Your task to perform on an android device: Search for "macbook" on newegg, select the first entry, and add it to the cart. Image 0: 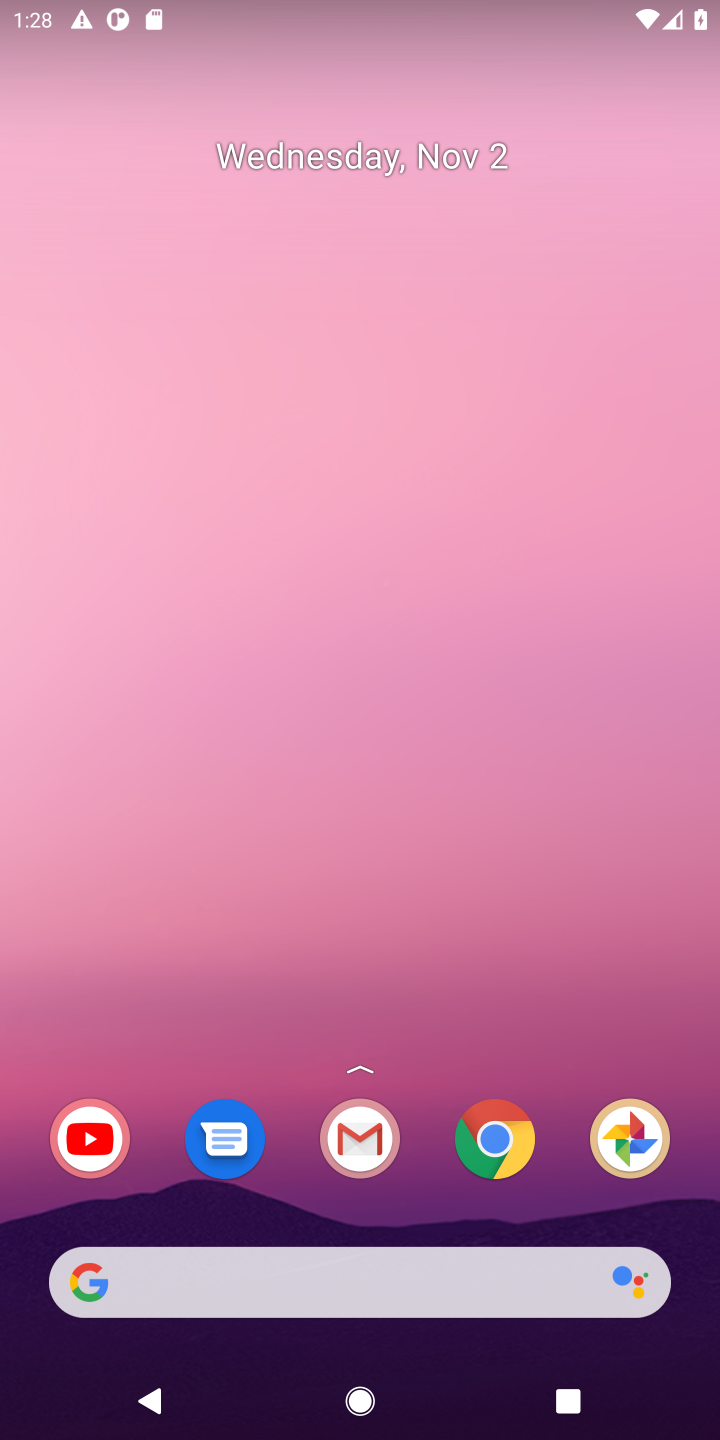
Step 0: press home button
Your task to perform on an android device: Search for "macbook" on newegg, select the first entry, and add it to the cart. Image 1: 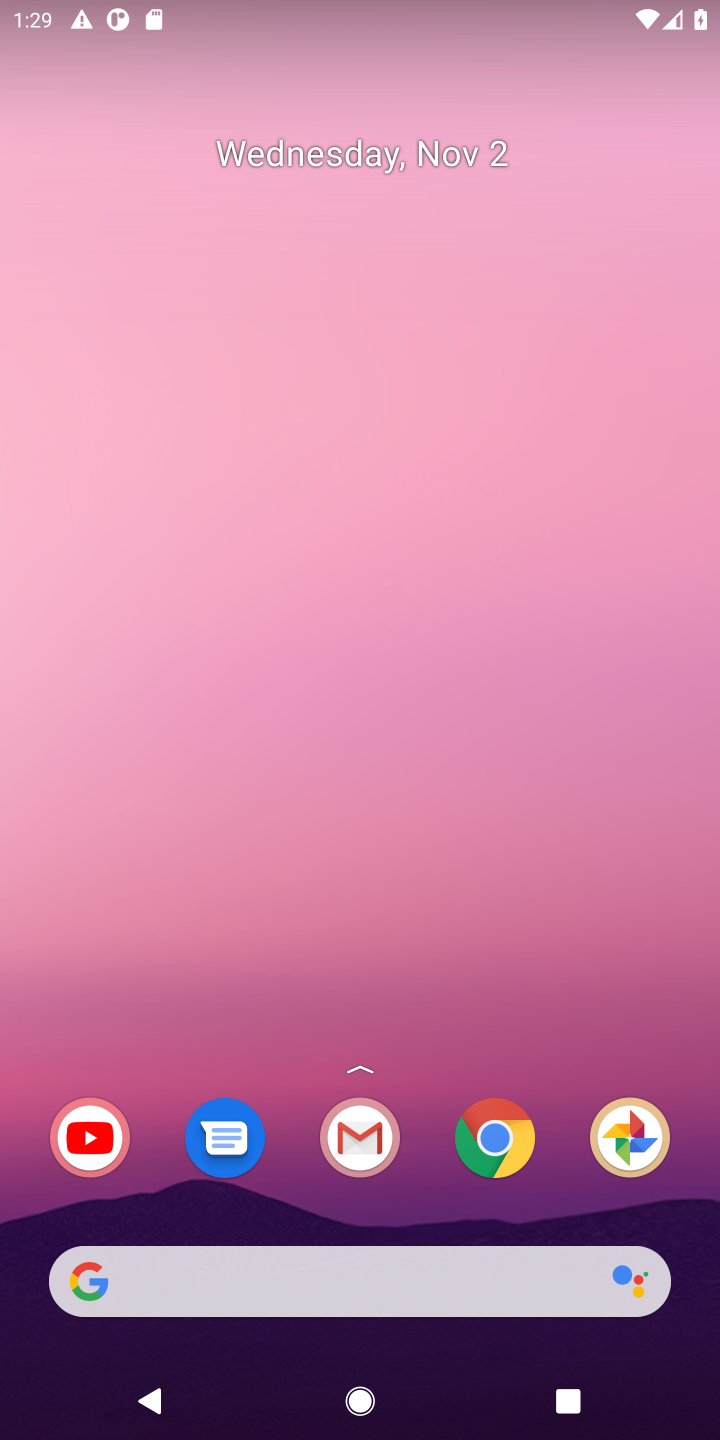
Step 1: click (150, 1270)
Your task to perform on an android device: Search for "macbook" on newegg, select the first entry, and add it to the cart. Image 2: 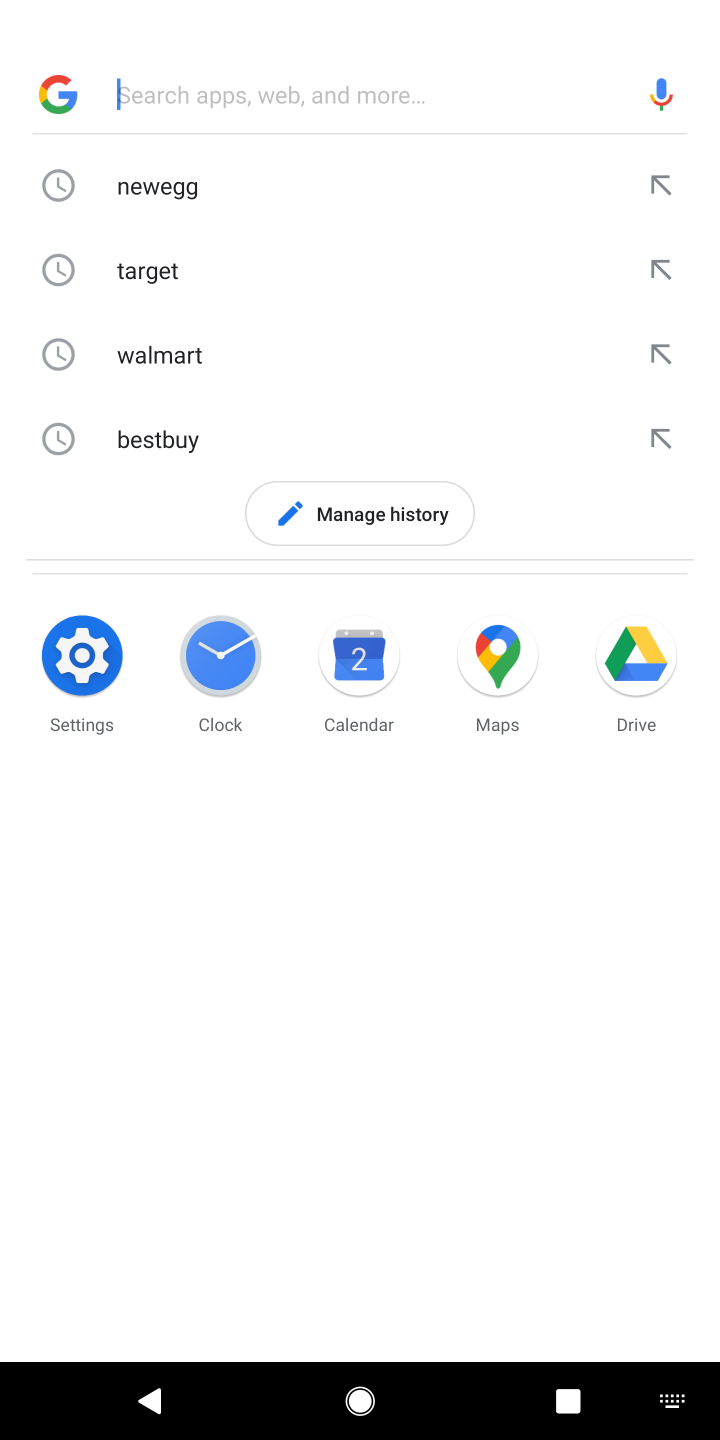
Step 2: type " newegg"
Your task to perform on an android device: Search for "macbook" on newegg, select the first entry, and add it to the cart. Image 3: 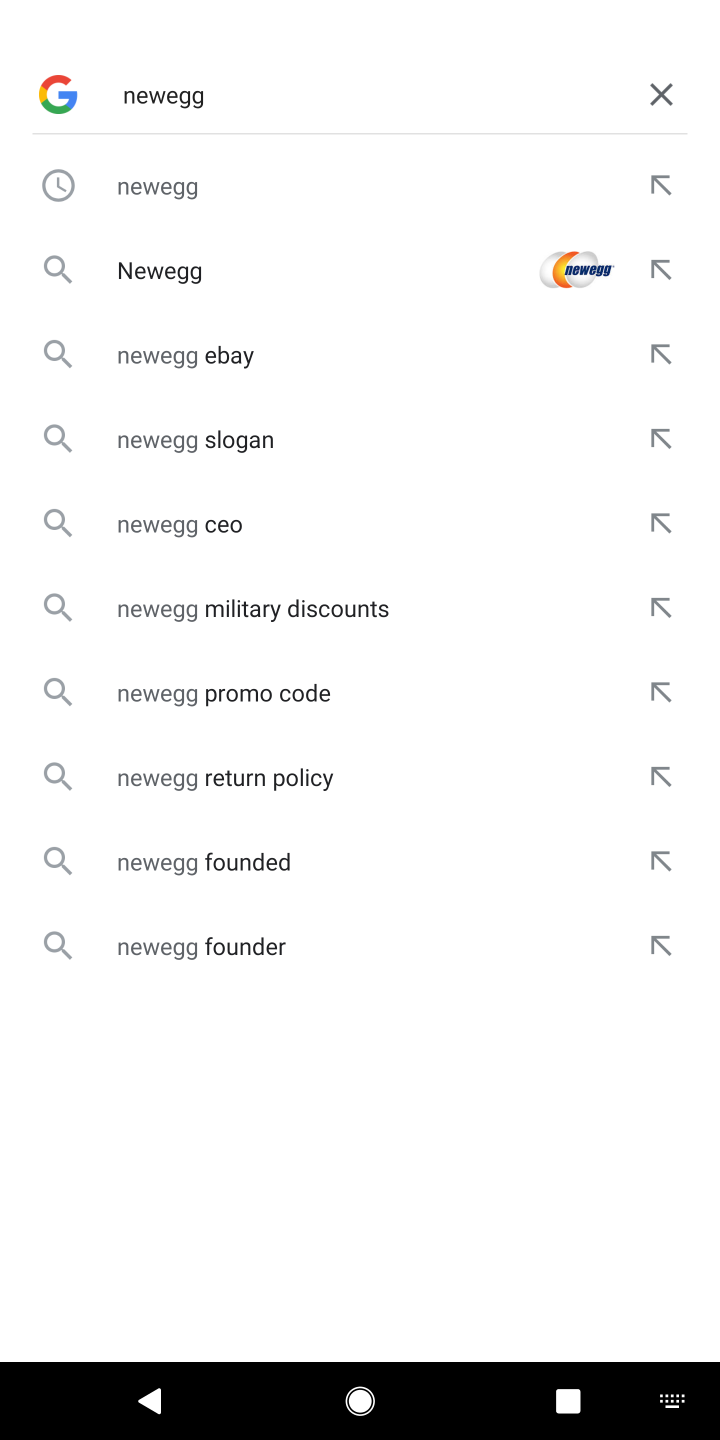
Step 3: press enter
Your task to perform on an android device: Search for "macbook" on newegg, select the first entry, and add it to the cart. Image 4: 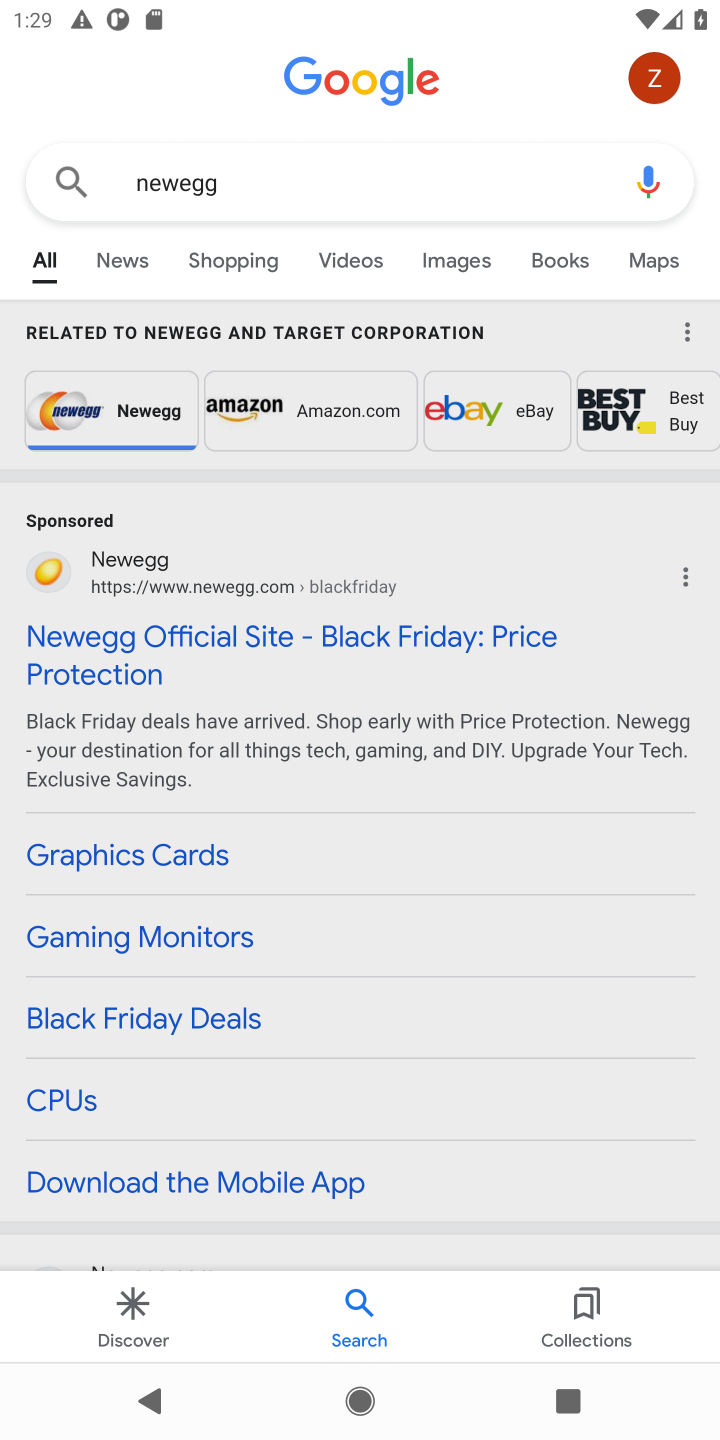
Step 4: click (237, 645)
Your task to perform on an android device: Search for "macbook" on newegg, select the first entry, and add it to the cart. Image 5: 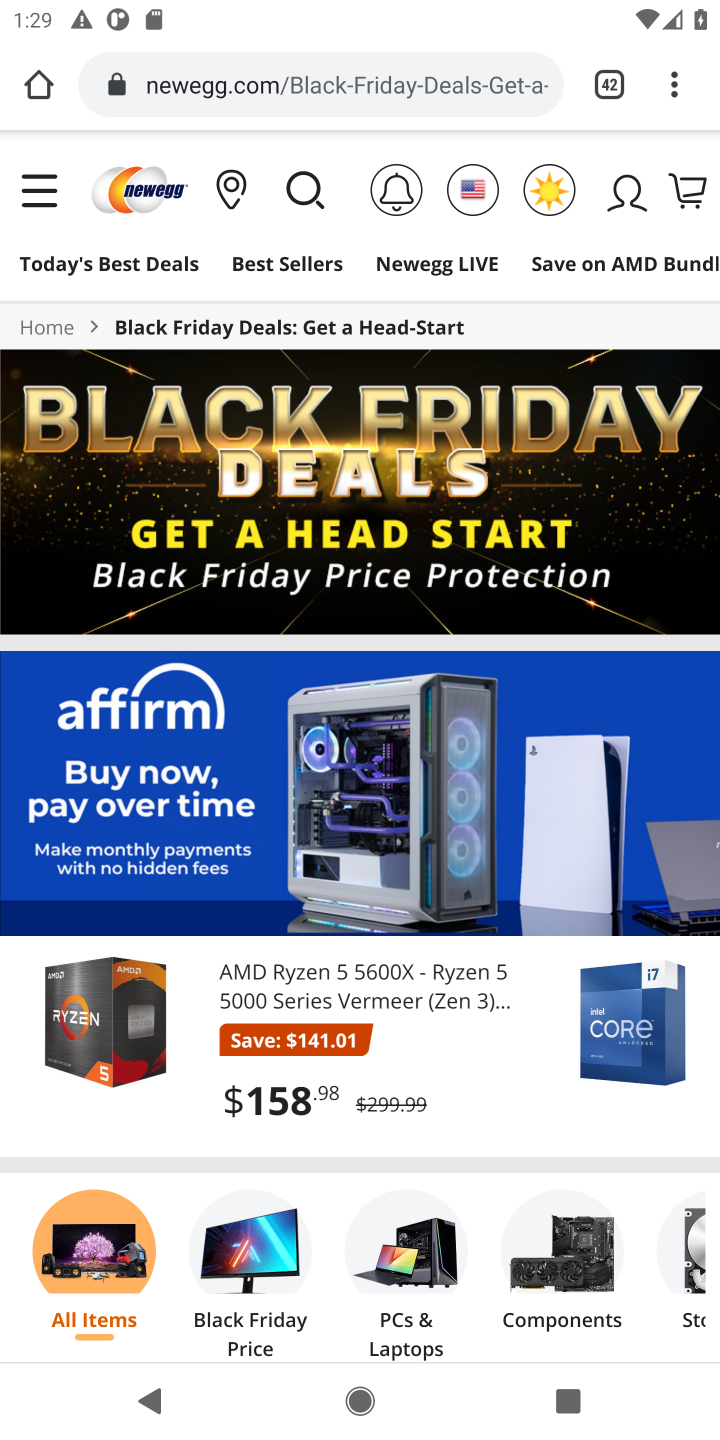
Step 5: click (296, 183)
Your task to perform on an android device: Search for "macbook" on newegg, select the first entry, and add it to the cart. Image 6: 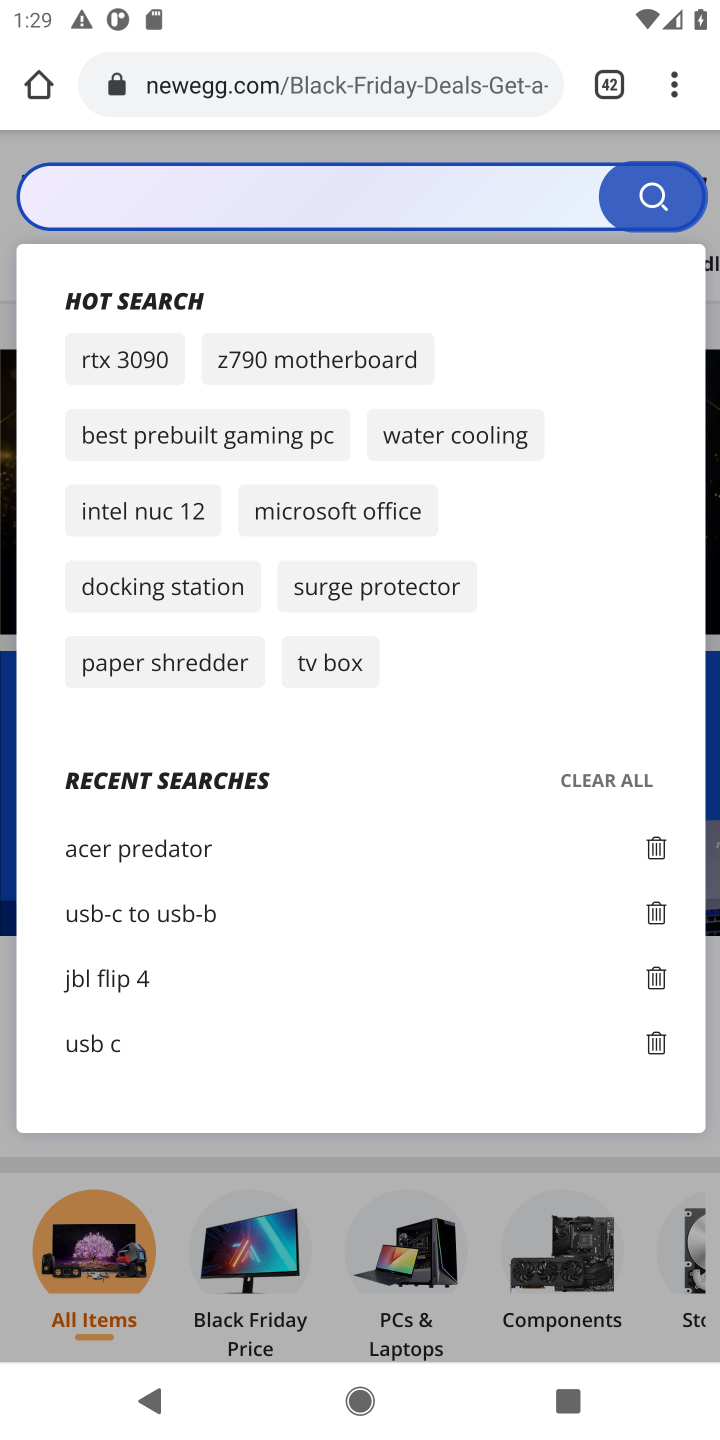
Step 6: click (135, 190)
Your task to perform on an android device: Search for "macbook" on newegg, select the first entry, and add it to the cart. Image 7: 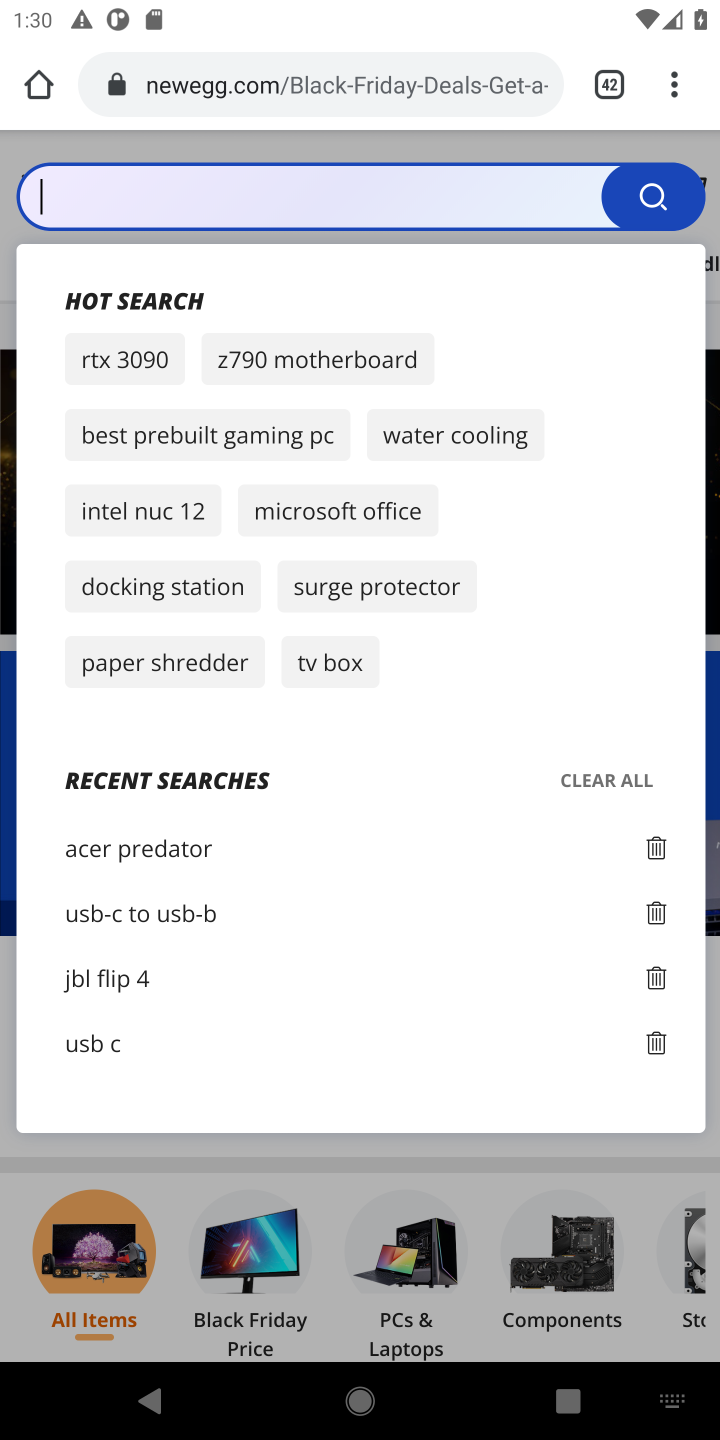
Step 7: press enter
Your task to perform on an android device: Search for "macbook" on newegg, select the first entry, and add it to the cart. Image 8: 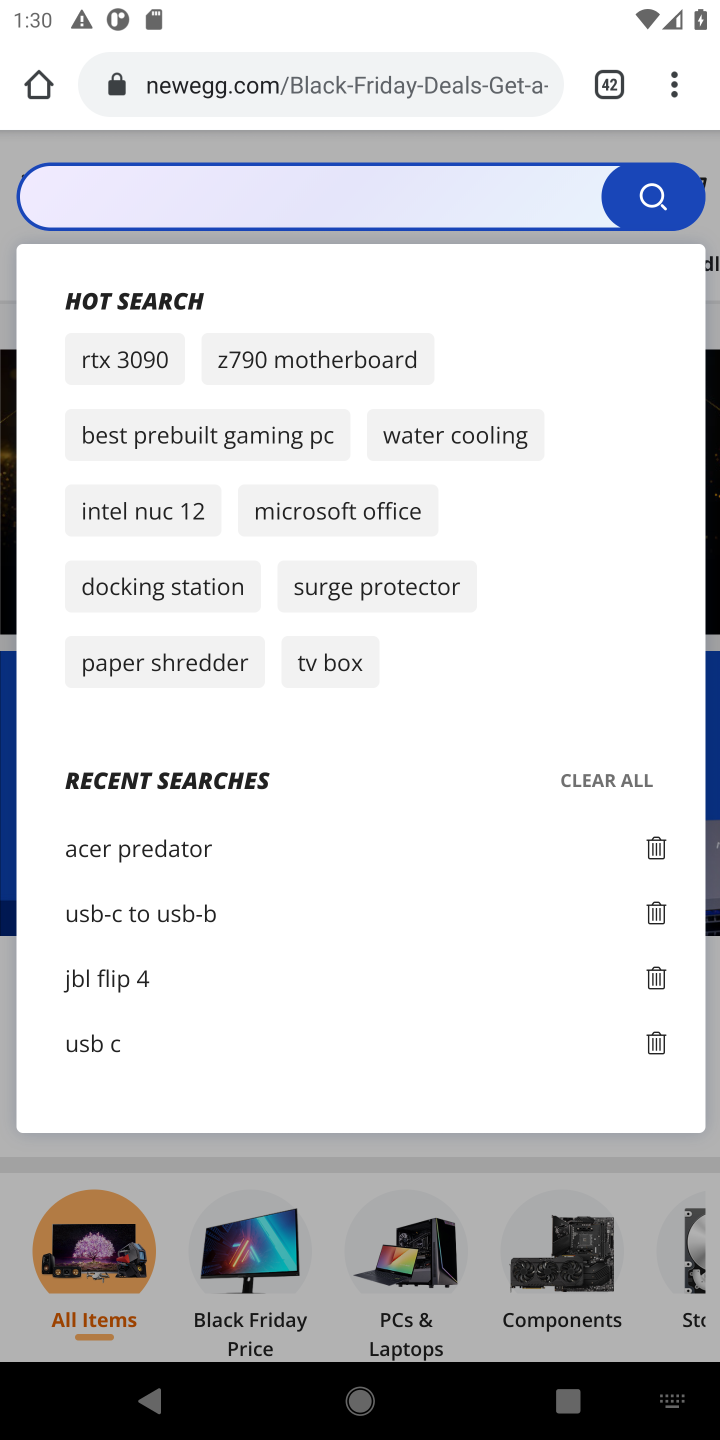
Step 8: type "mackbook"
Your task to perform on an android device: Search for "macbook" on newegg, select the first entry, and add it to the cart. Image 9: 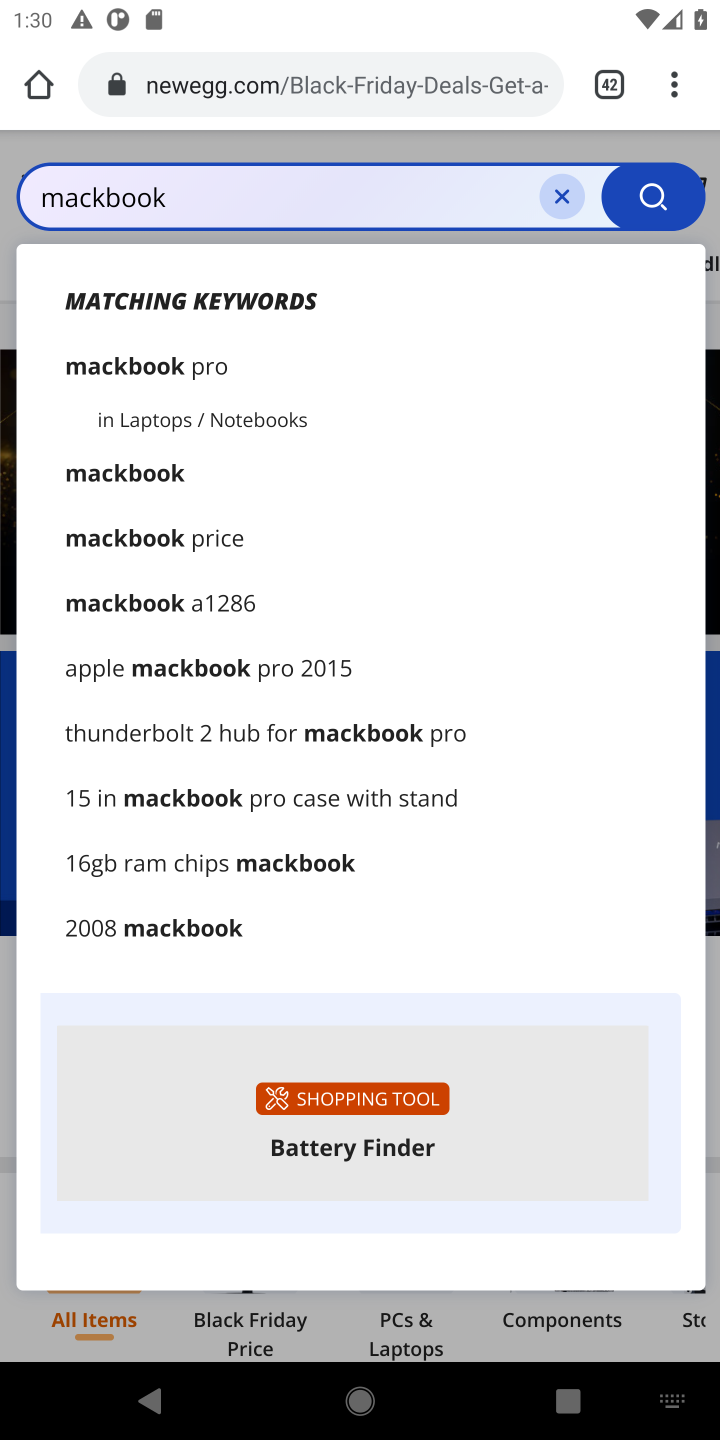
Step 9: click (654, 192)
Your task to perform on an android device: Search for "macbook" on newegg, select the first entry, and add it to the cart. Image 10: 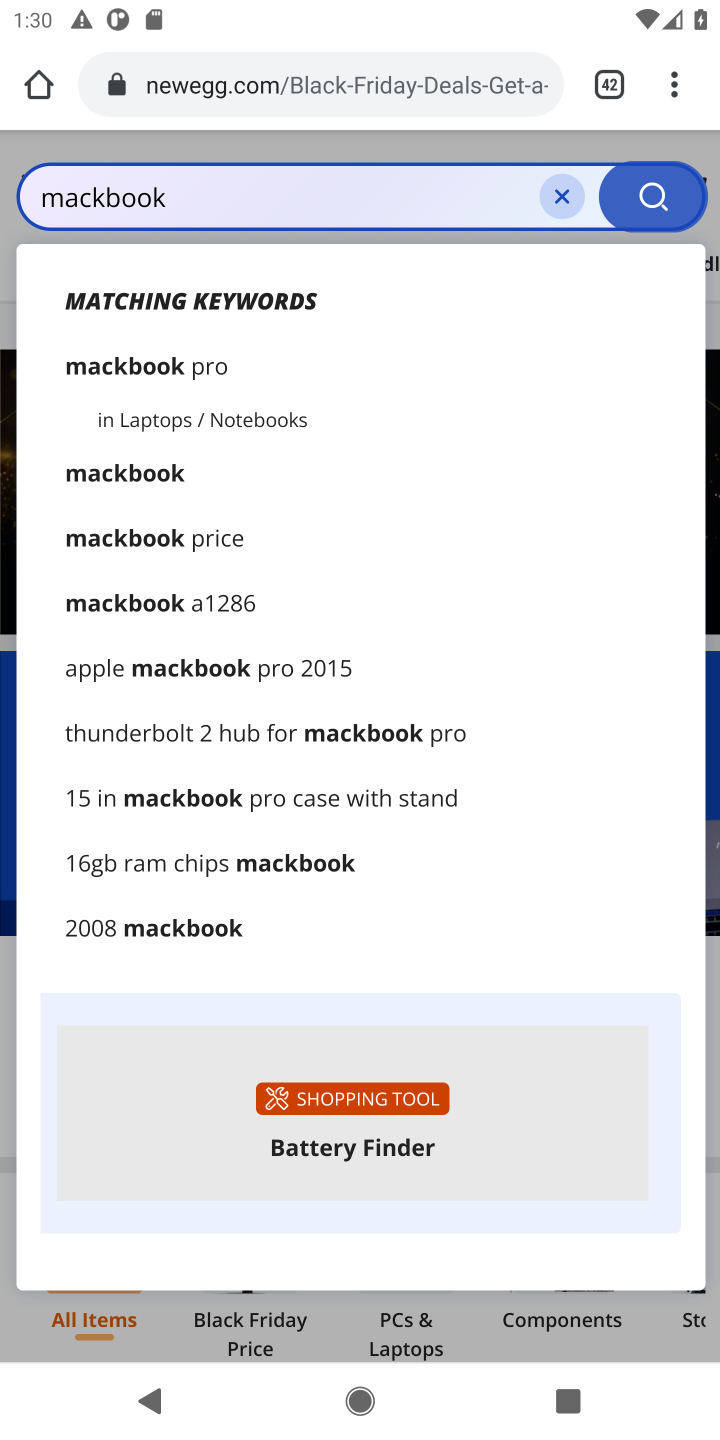
Step 10: click (649, 197)
Your task to perform on an android device: Search for "macbook" on newegg, select the first entry, and add it to the cart. Image 11: 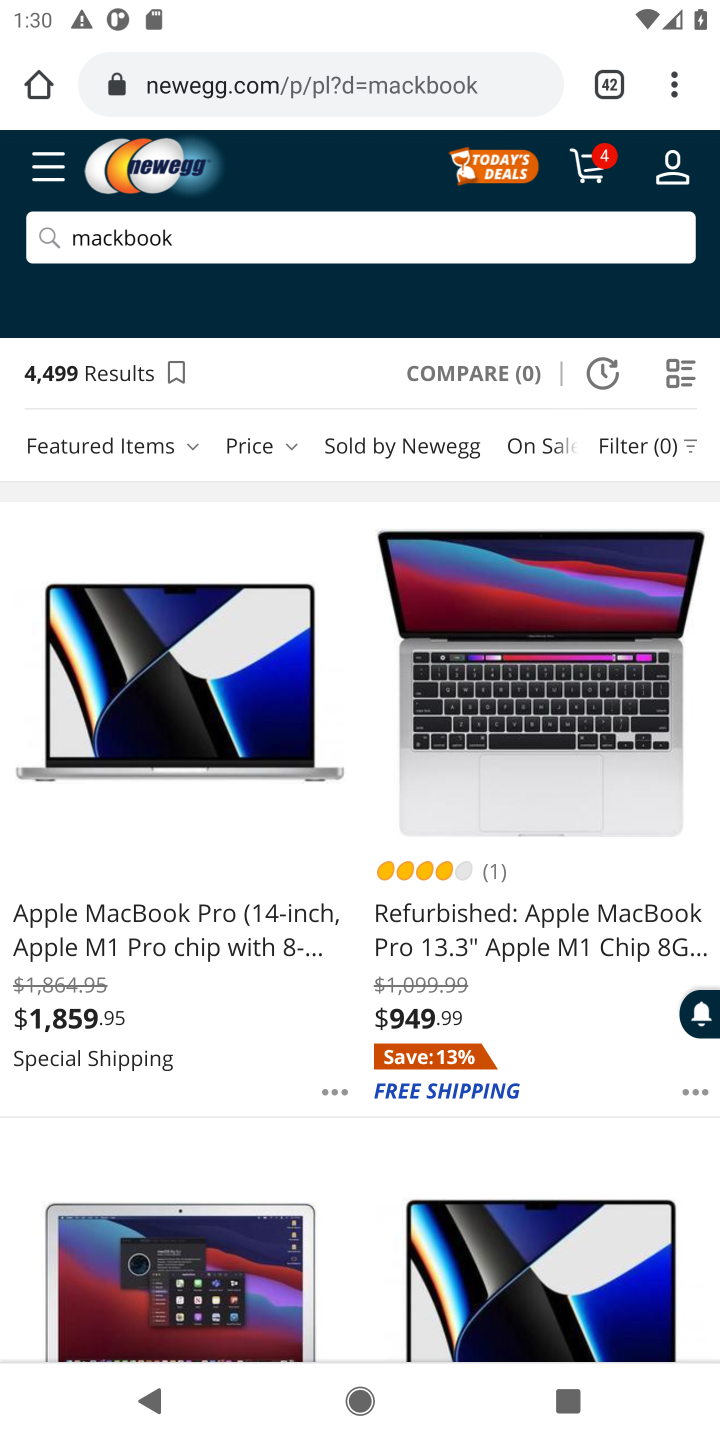
Step 11: drag from (518, 1068) to (527, 780)
Your task to perform on an android device: Search for "macbook" on newegg, select the first entry, and add it to the cart. Image 12: 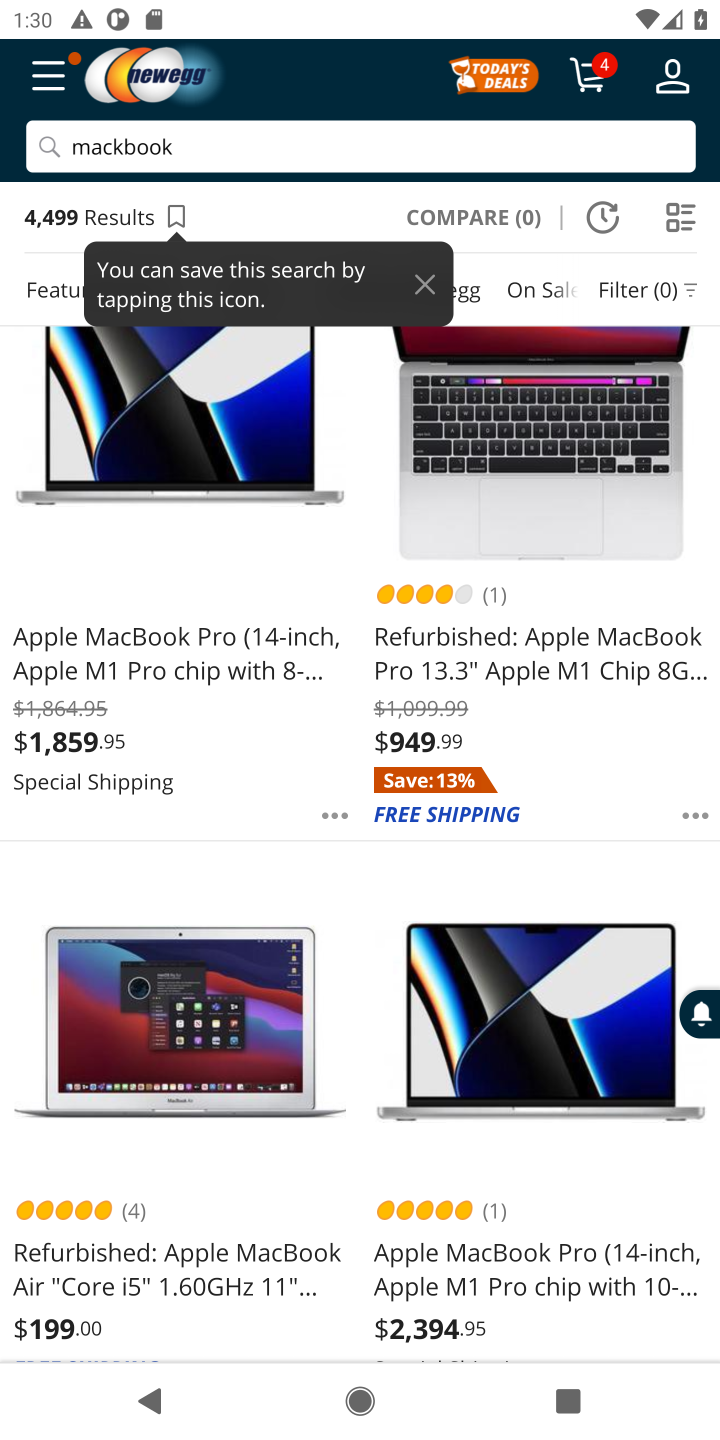
Step 12: click (146, 652)
Your task to perform on an android device: Search for "macbook" on newegg, select the first entry, and add it to the cart. Image 13: 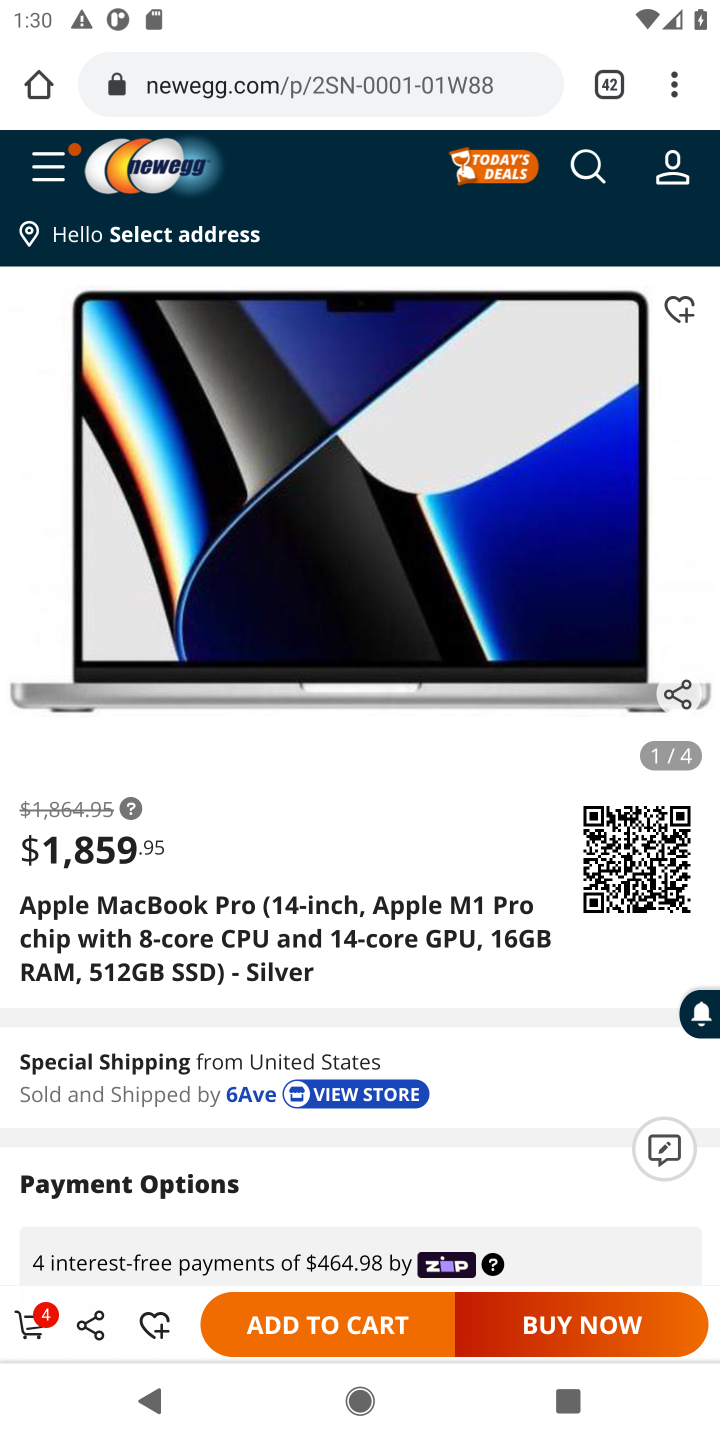
Step 13: click (293, 1331)
Your task to perform on an android device: Search for "macbook" on newegg, select the first entry, and add it to the cart. Image 14: 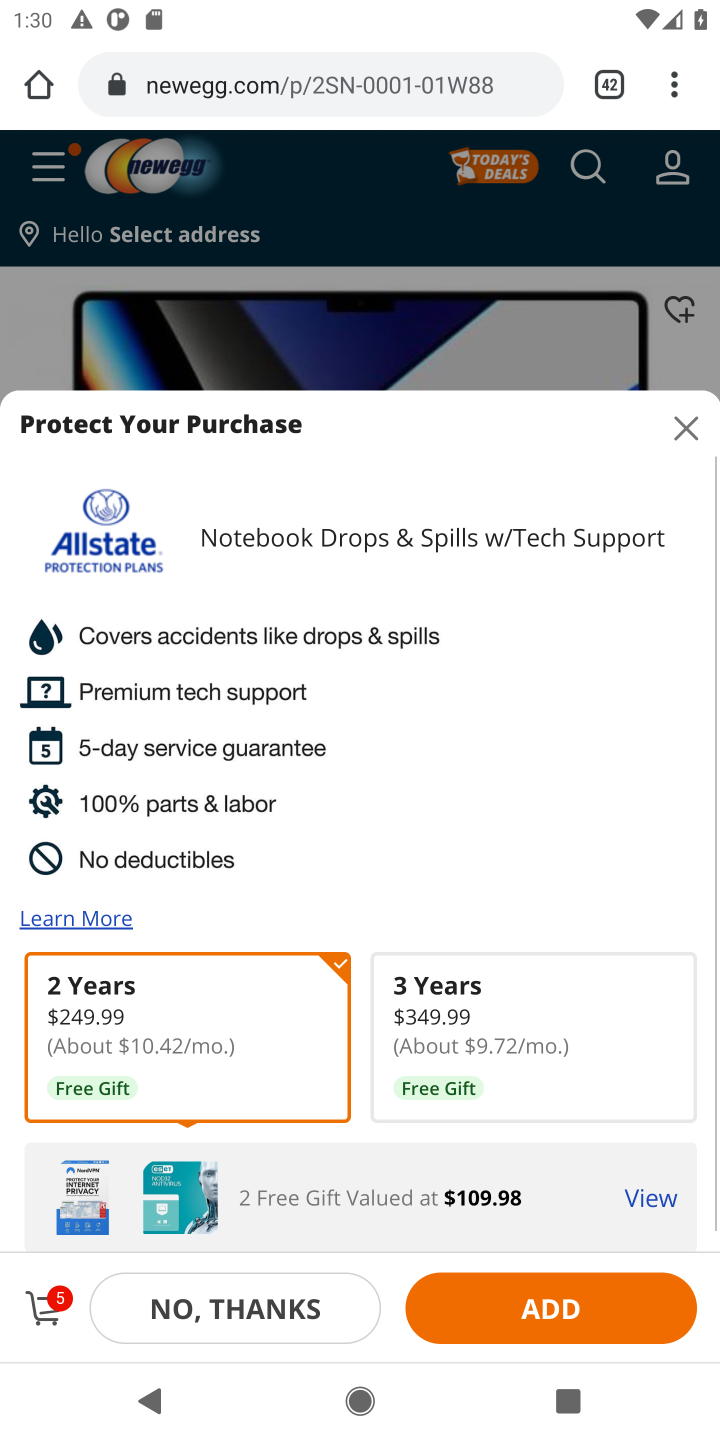
Step 14: task complete